Your task to perform on an android device: add a contact in the contacts app Image 0: 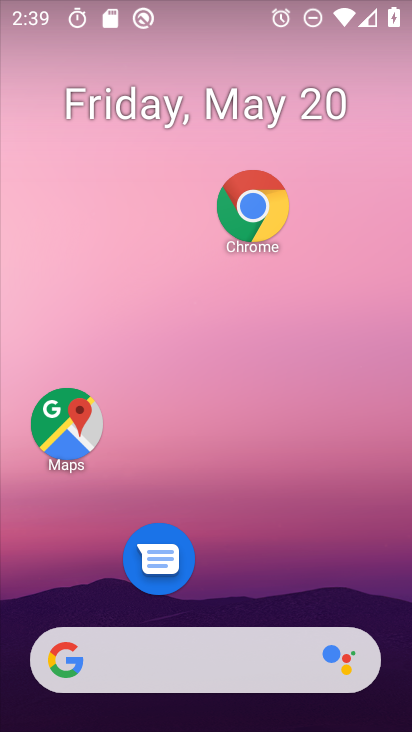
Step 0: drag from (217, 604) to (250, 4)
Your task to perform on an android device: add a contact in the contacts app Image 1: 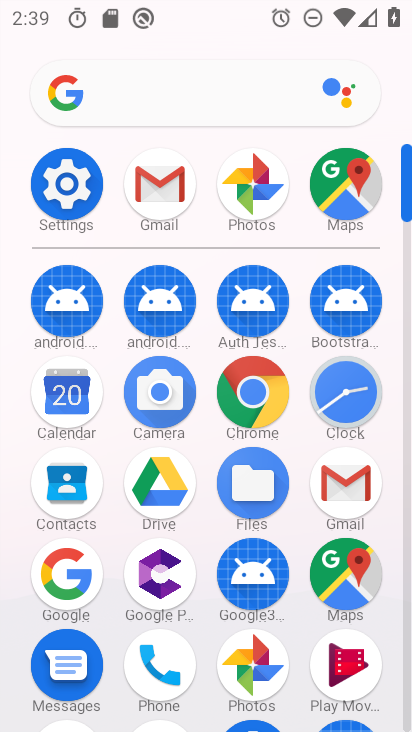
Step 1: click (150, 680)
Your task to perform on an android device: add a contact in the contacts app Image 2: 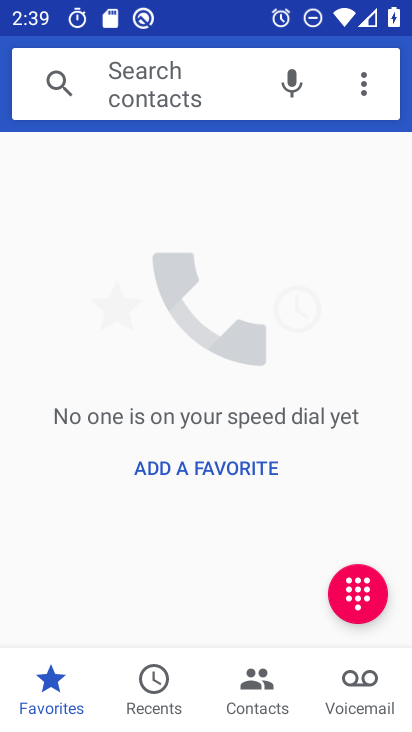
Step 2: click (262, 675)
Your task to perform on an android device: add a contact in the contacts app Image 3: 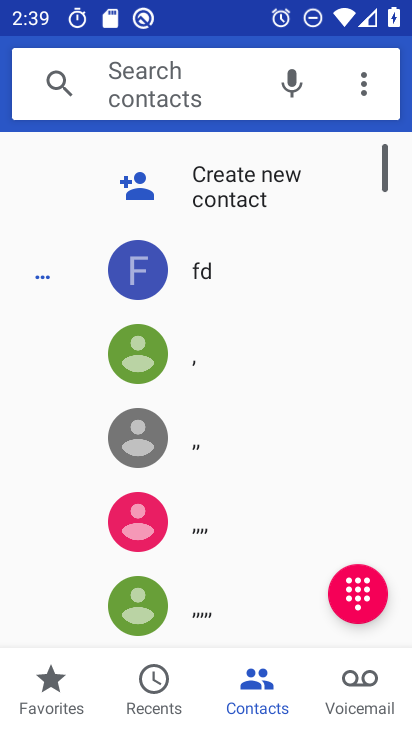
Step 3: click (181, 167)
Your task to perform on an android device: add a contact in the contacts app Image 4: 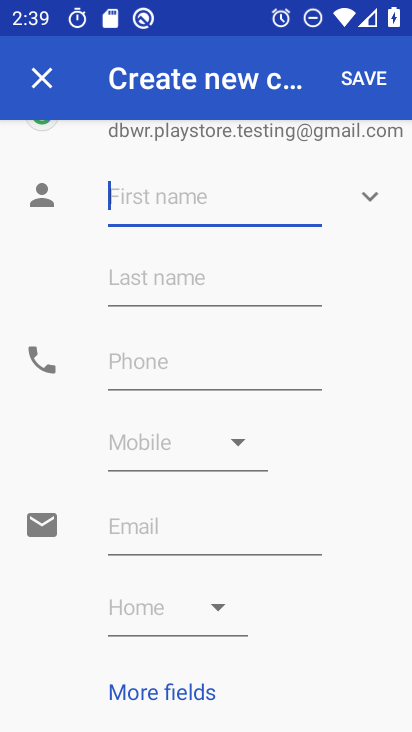
Step 4: type "kl"
Your task to perform on an android device: add a contact in the contacts app Image 5: 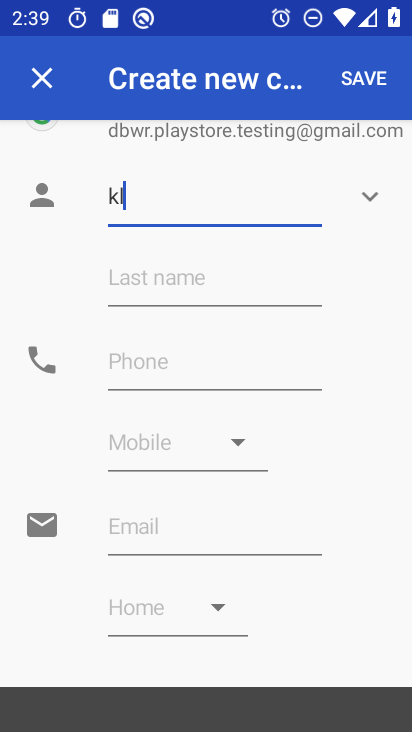
Step 5: type ""
Your task to perform on an android device: add a contact in the contacts app Image 6: 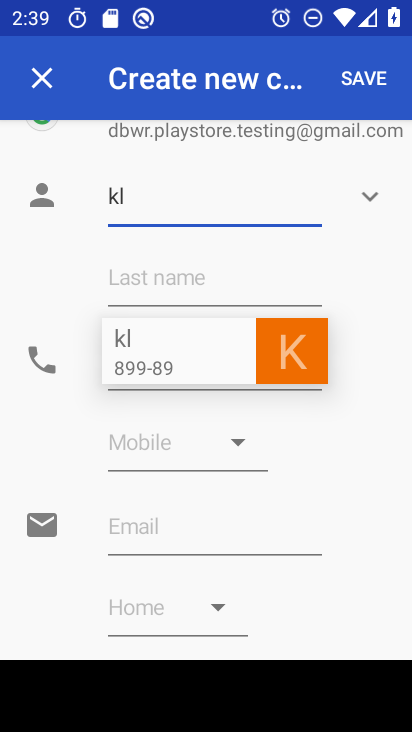
Step 6: click (110, 376)
Your task to perform on an android device: add a contact in the contacts app Image 7: 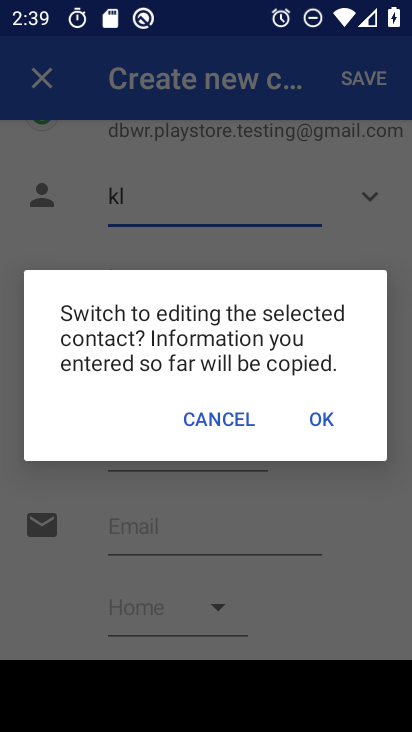
Step 7: click (235, 355)
Your task to perform on an android device: add a contact in the contacts app Image 8: 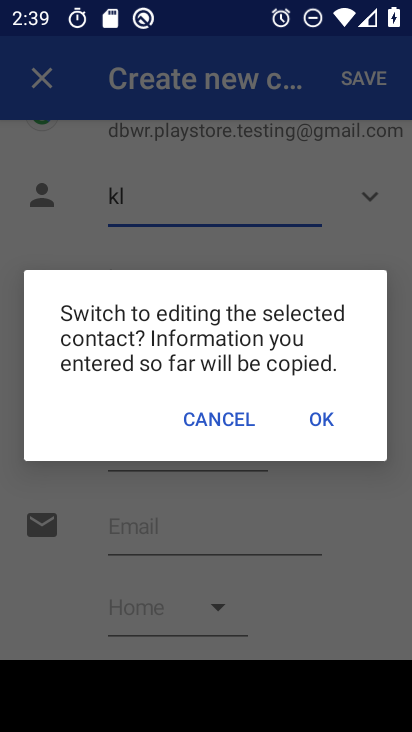
Step 8: click (304, 417)
Your task to perform on an android device: add a contact in the contacts app Image 9: 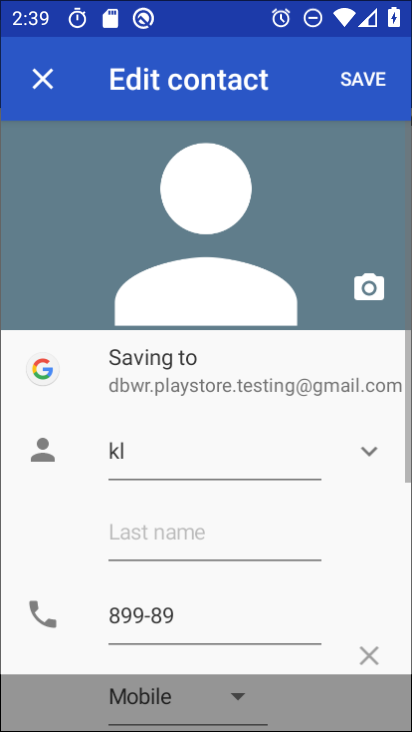
Step 9: click (359, 77)
Your task to perform on an android device: add a contact in the contacts app Image 10: 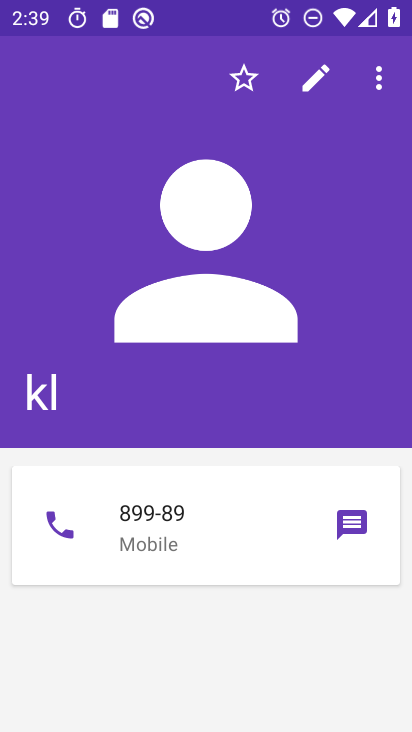
Step 10: task complete